Your task to perform on an android device: turn on bluetooth scan Image 0: 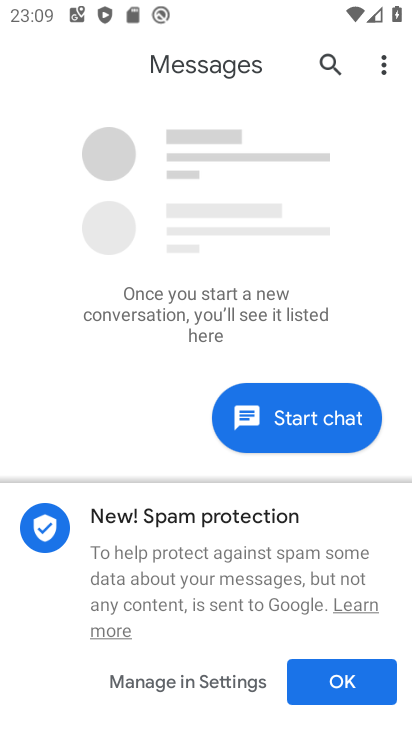
Step 0: press home button
Your task to perform on an android device: turn on bluetooth scan Image 1: 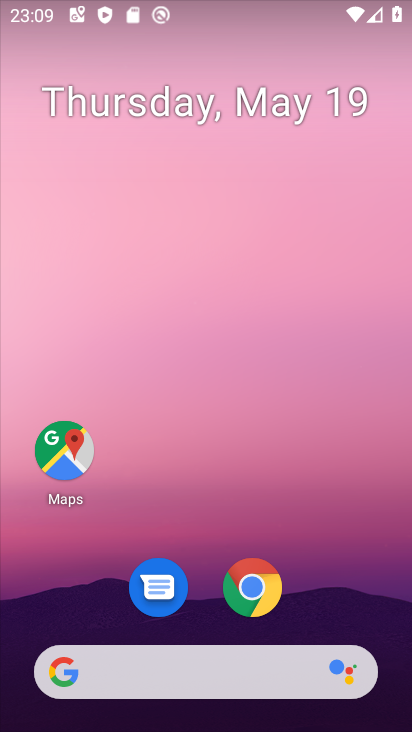
Step 1: drag from (240, 708) to (250, 330)
Your task to perform on an android device: turn on bluetooth scan Image 2: 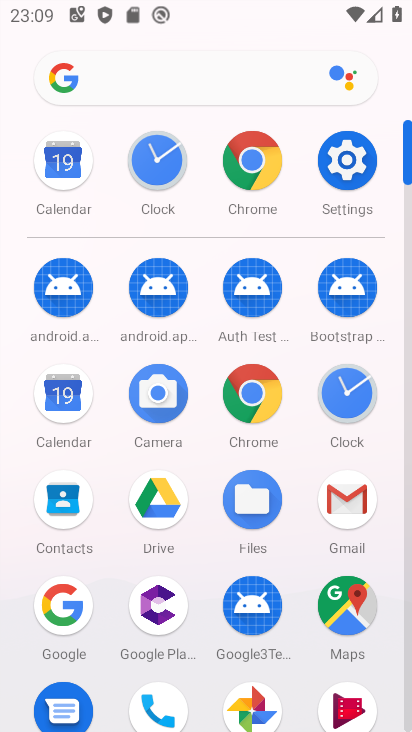
Step 2: click (331, 171)
Your task to perform on an android device: turn on bluetooth scan Image 3: 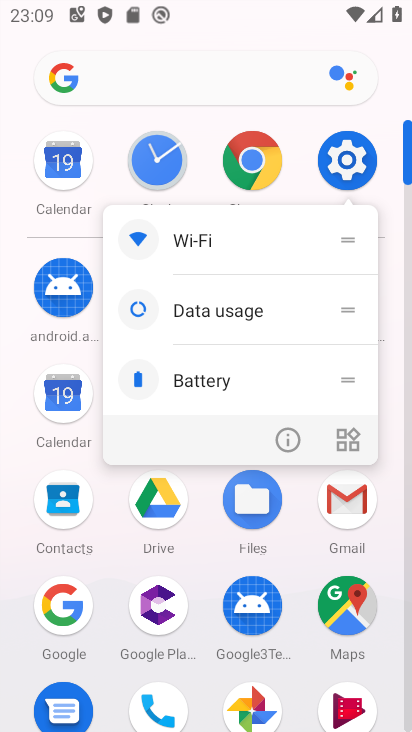
Step 3: click (359, 166)
Your task to perform on an android device: turn on bluetooth scan Image 4: 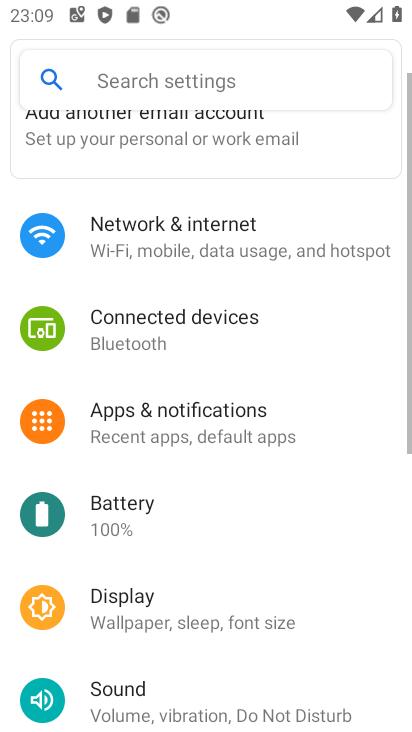
Step 4: click (161, 76)
Your task to perform on an android device: turn on bluetooth scan Image 5: 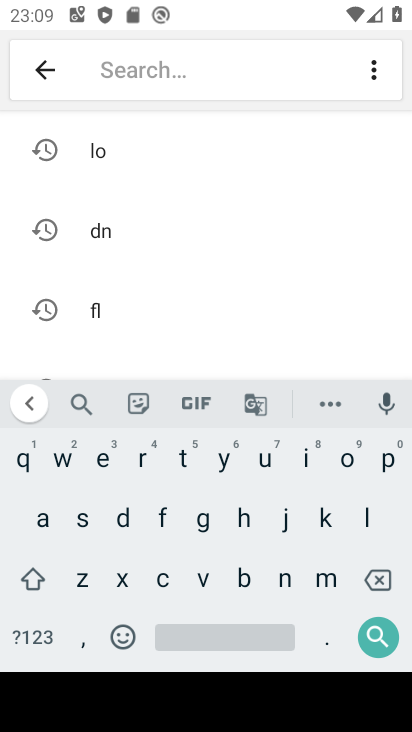
Step 5: click (370, 516)
Your task to perform on an android device: turn on bluetooth scan Image 6: 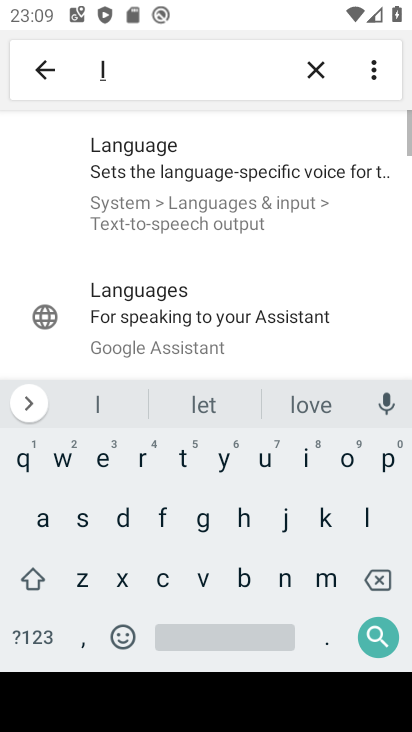
Step 6: click (340, 460)
Your task to perform on an android device: turn on bluetooth scan Image 7: 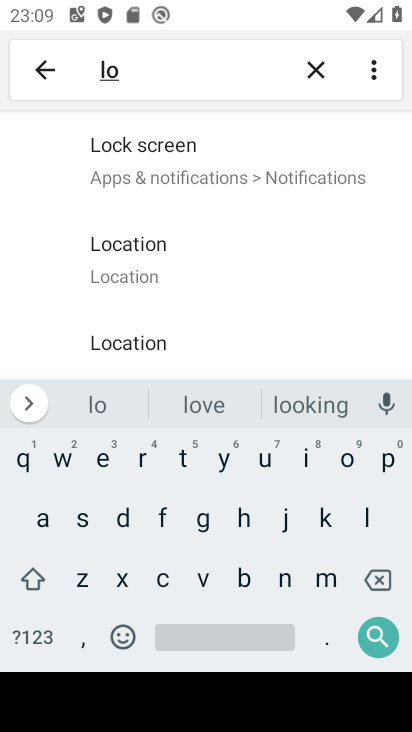
Step 7: click (151, 264)
Your task to perform on an android device: turn on bluetooth scan Image 8: 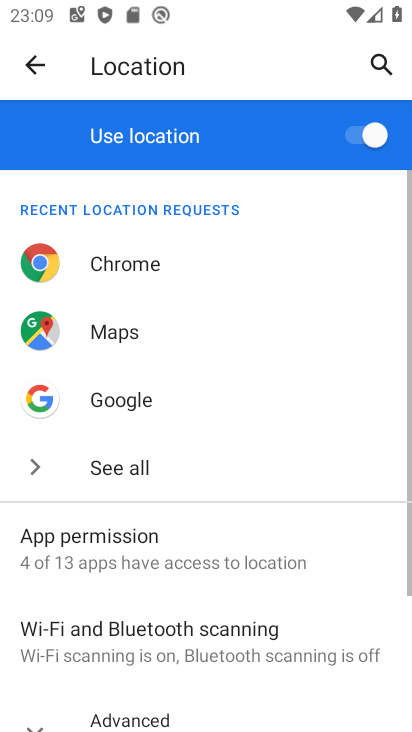
Step 8: click (146, 629)
Your task to perform on an android device: turn on bluetooth scan Image 9: 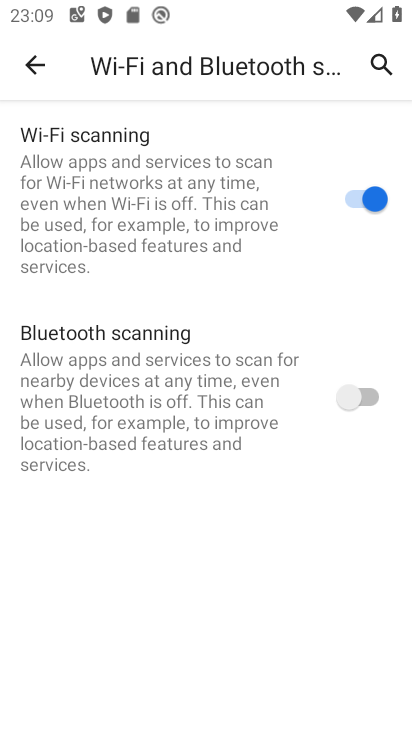
Step 9: click (354, 405)
Your task to perform on an android device: turn on bluetooth scan Image 10: 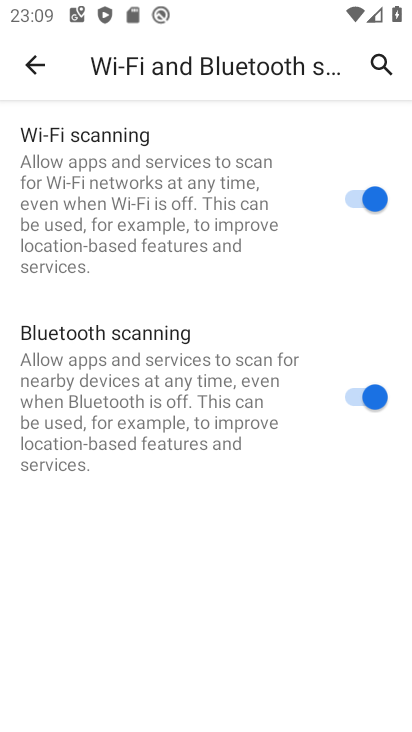
Step 10: task complete